Your task to perform on an android device: Show me the alarms in the clock app Image 0: 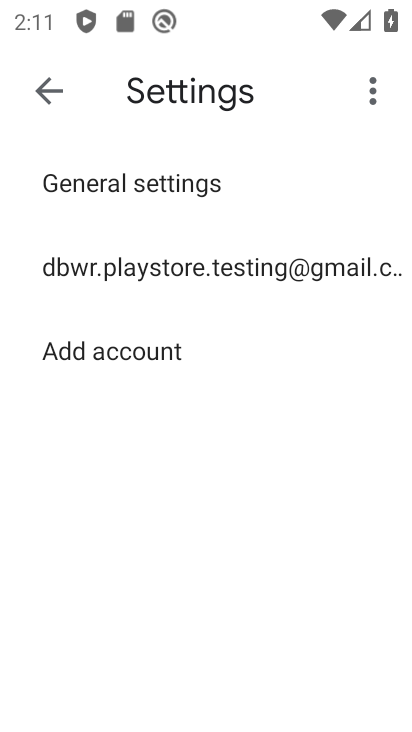
Step 0: press home button
Your task to perform on an android device: Show me the alarms in the clock app Image 1: 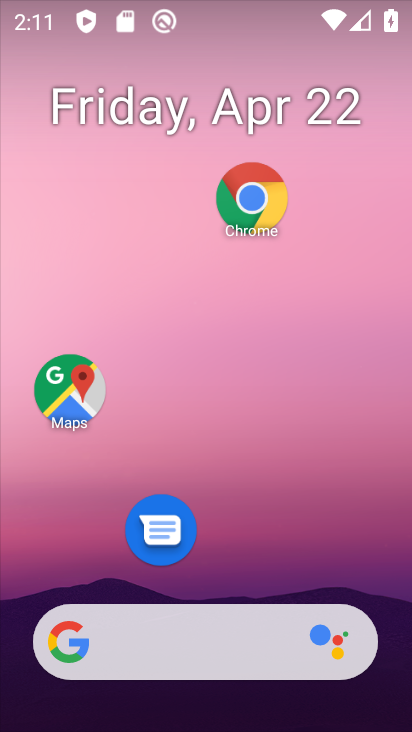
Step 1: drag from (228, 584) to (266, 76)
Your task to perform on an android device: Show me the alarms in the clock app Image 2: 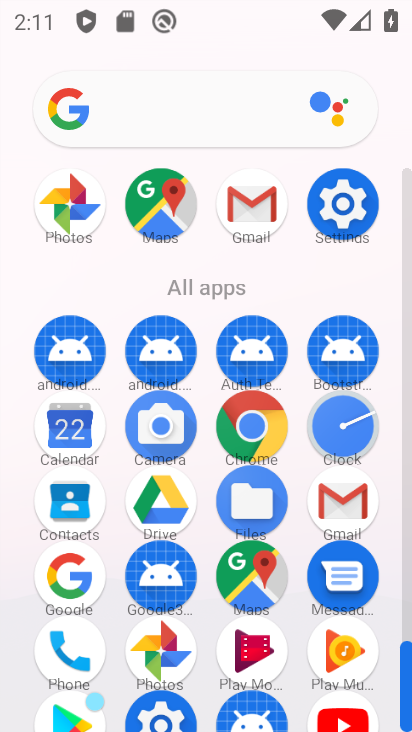
Step 2: click (344, 418)
Your task to perform on an android device: Show me the alarms in the clock app Image 3: 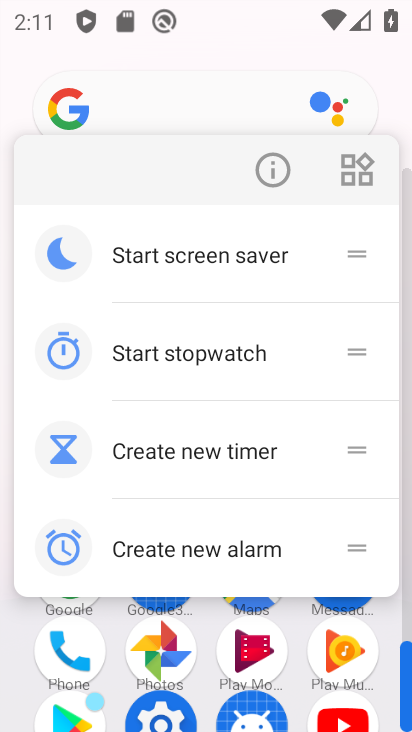
Step 3: click (13, 616)
Your task to perform on an android device: Show me the alarms in the clock app Image 4: 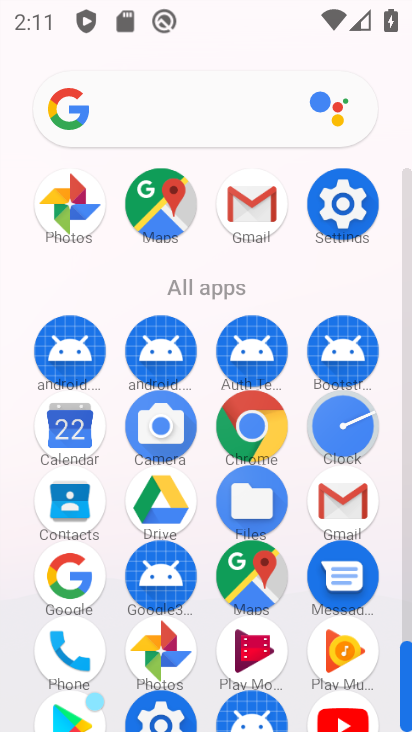
Step 4: click (338, 420)
Your task to perform on an android device: Show me the alarms in the clock app Image 5: 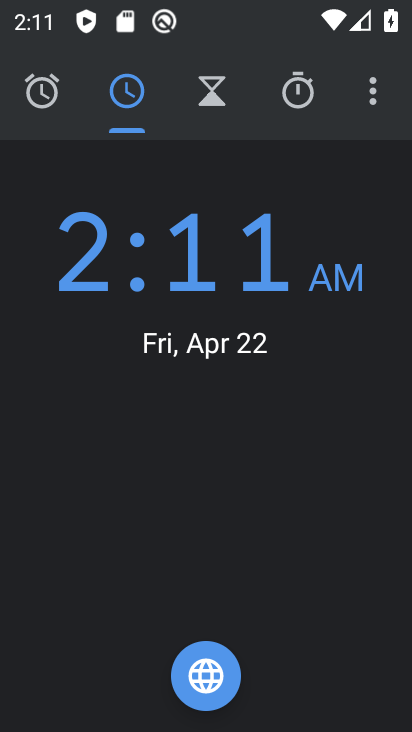
Step 5: click (358, 97)
Your task to perform on an android device: Show me the alarms in the clock app Image 6: 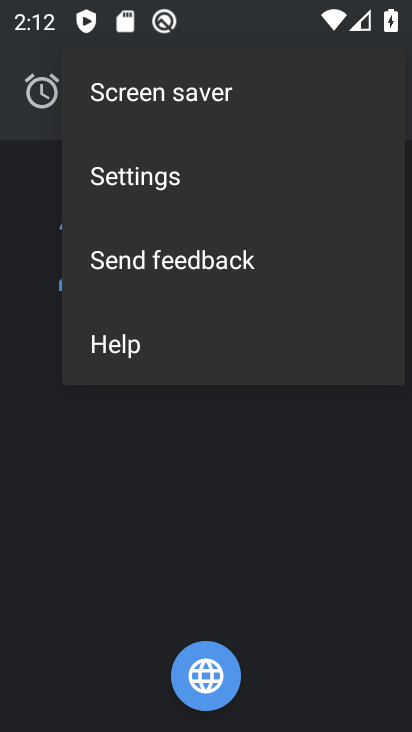
Step 6: click (83, 515)
Your task to perform on an android device: Show me the alarms in the clock app Image 7: 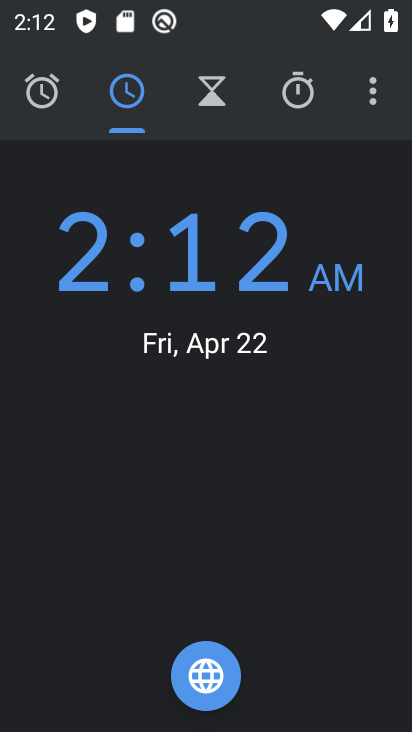
Step 7: click (39, 83)
Your task to perform on an android device: Show me the alarms in the clock app Image 8: 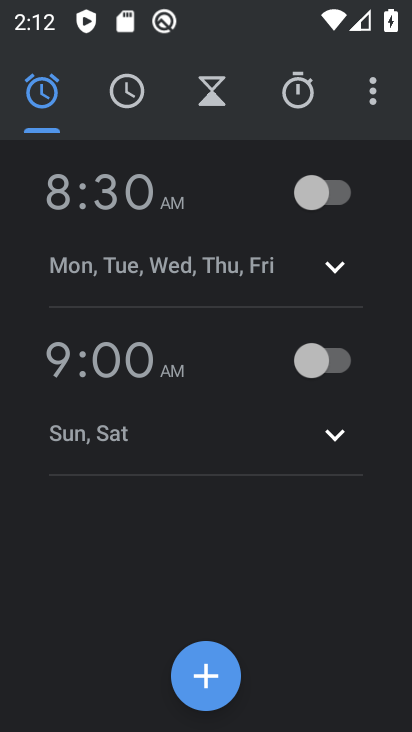
Step 8: click (114, 200)
Your task to perform on an android device: Show me the alarms in the clock app Image 9: 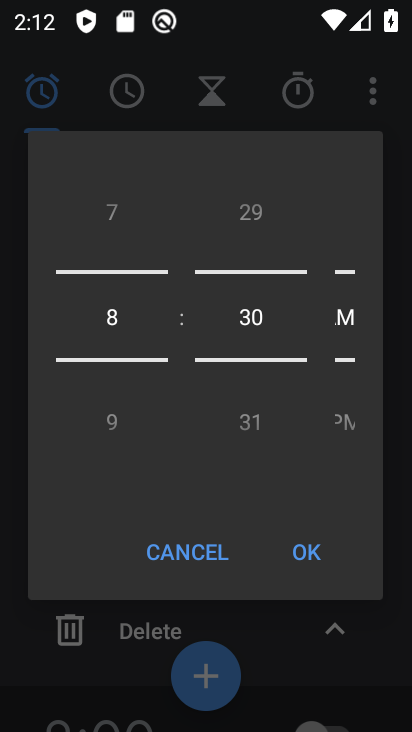
Step 9: click (301, 550)
Your task to perform on an android device: Show me the alarms in the clock app Image 10: 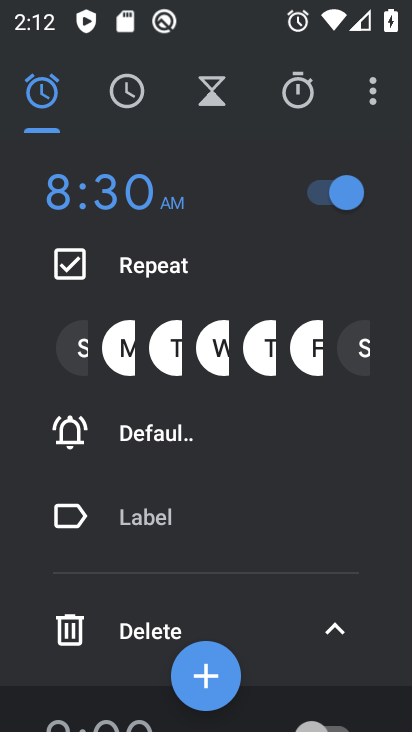
Step 10: click (71, 343)
Your task to perform on an android device: Show me the alarms in the clock app Image 11: 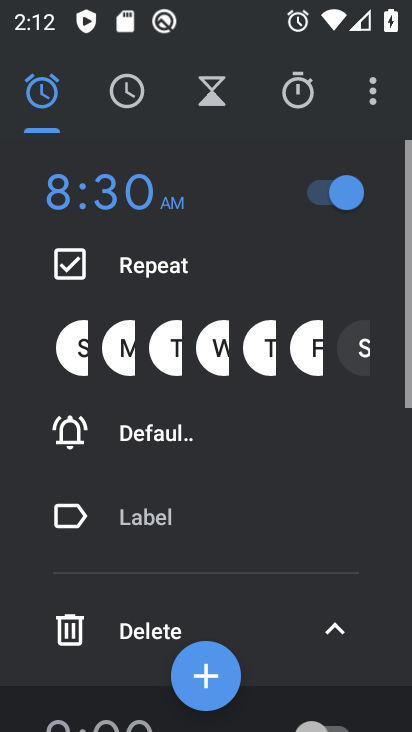
Step 11: click (361, 360)
Your task to perform on an android device: Show me the alarms in the clock app Image 12: 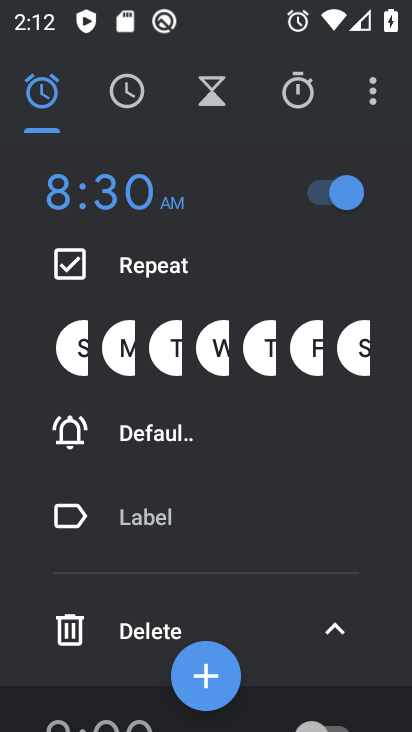
Step 12: task complete